Your task to perform on an android device: clear all cookies in the chrome app Image 0: 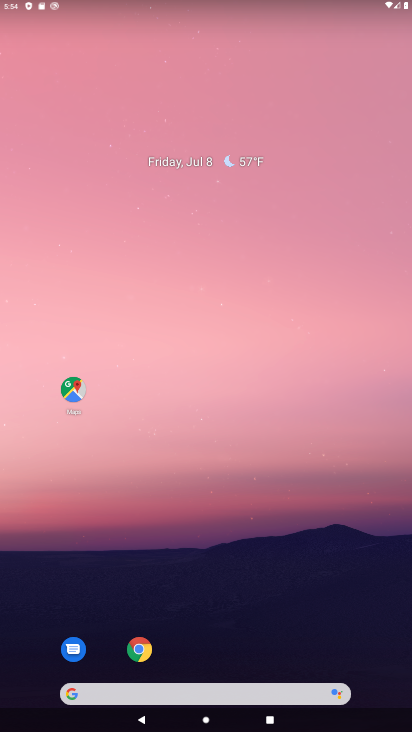
Step 0: drag from (218, 687) to (251, 191)
Your task to perform on an android device: clear all cookies in the chrome app Image 1: 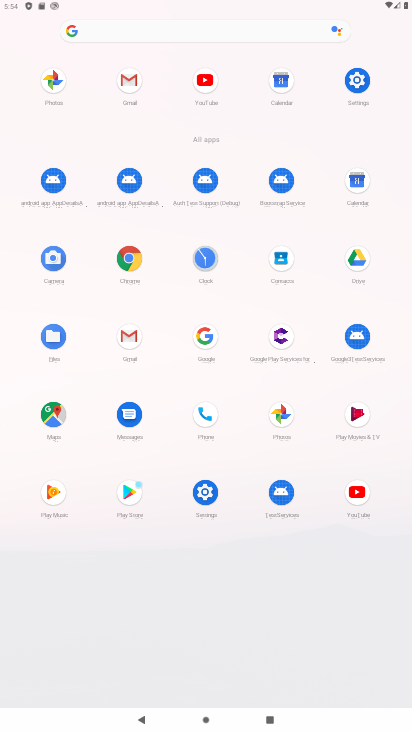
Step 1: click (126, 264)
Your task to perform on an android device: clear all cookies in the chrome app Image 2: 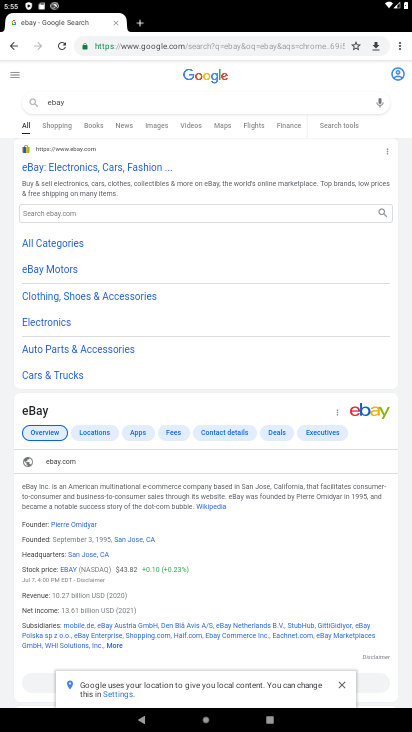
Step 2: press home button
Your task to perform on an android device: clear all cookies in the chrome app Image 3: 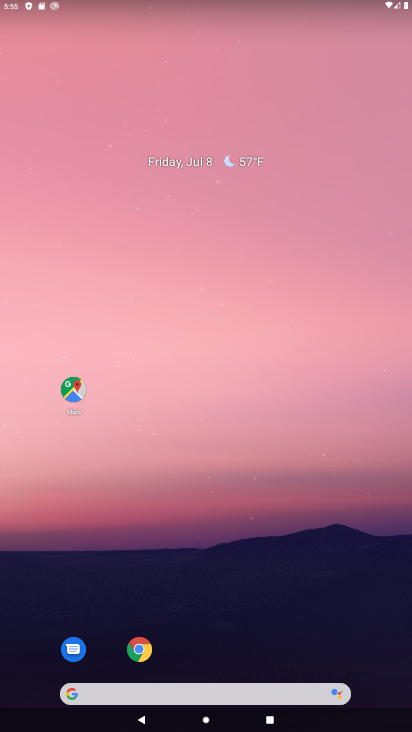
Step 3: drag from (266, 693) to (308, 27)
Your task to perform on an android device: clear all cookies in the chrome app Image 4: 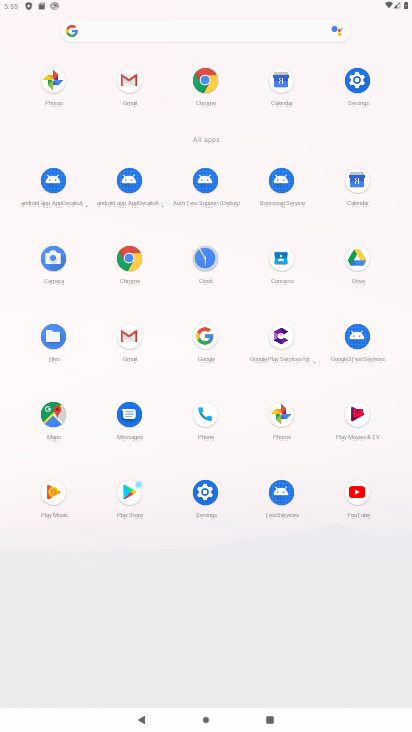
Step 4: click (134, 249)
Your task to perform on an android device: clear all cookies in the chrome app Image 5: 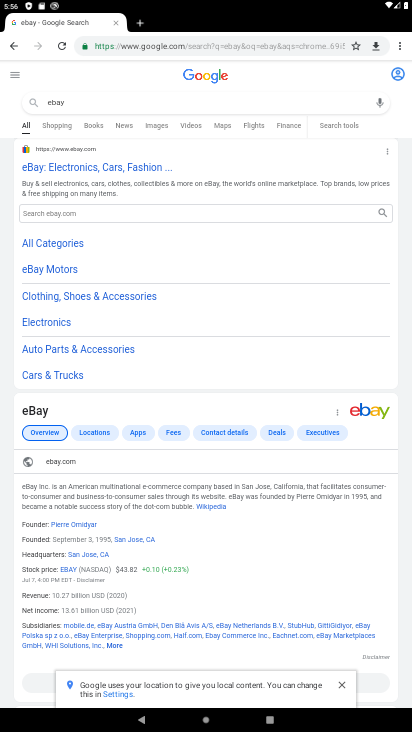
Step 5: drag from (398, 46) to (313, 280)
Your task to perform on an android device: clear all cookies in the chrome app Image 6: 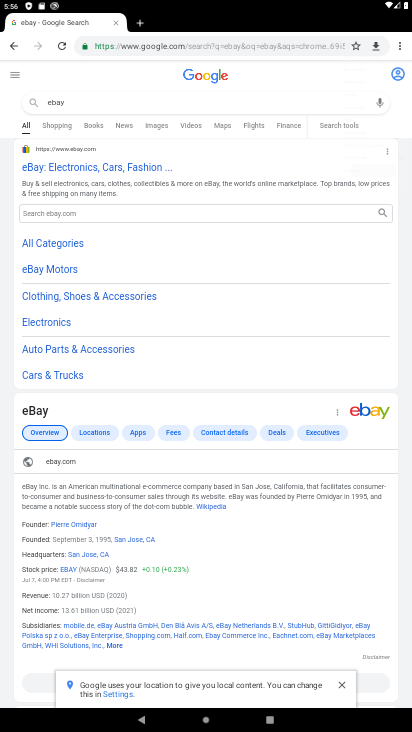
Step 6: click (315, 280)
Your task to perform on an android device: clear all cookies in the chrome app Image 7: 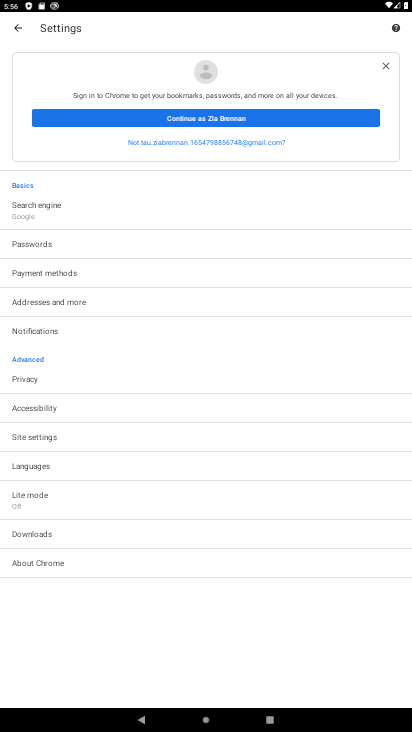
Step 7: click (56, 391)
Your task to perform on an android device: clear all cookies in the chrome app Image 8: 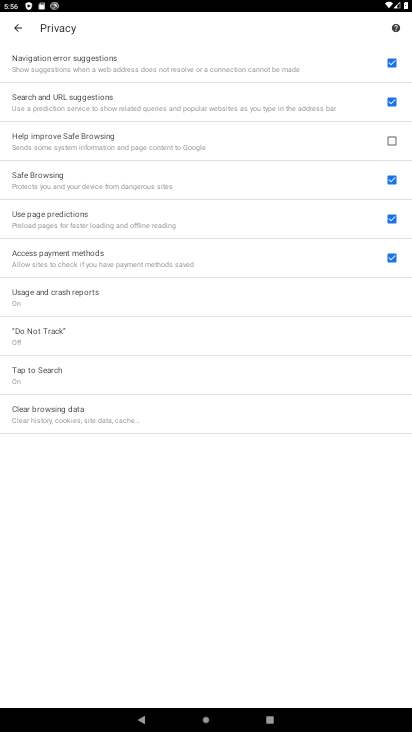
Step 8: click (50, 411)
Your task to perform on an android device: clear all cookies in the chrome app Image 9: 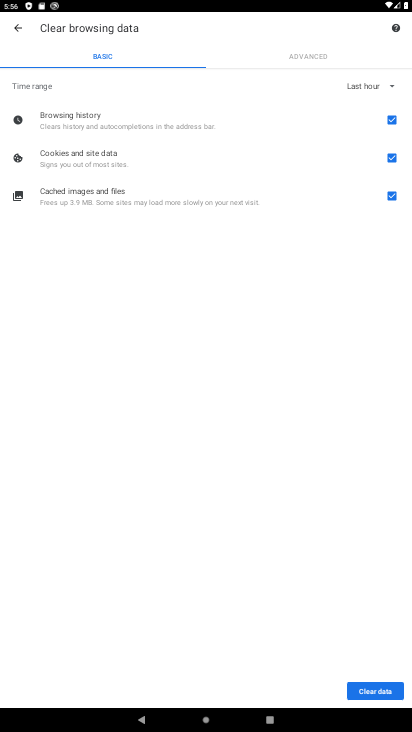
Step 9: click (381, 698)
Your task to perform on an android device: clear all cookies in the chrome app Image 10: 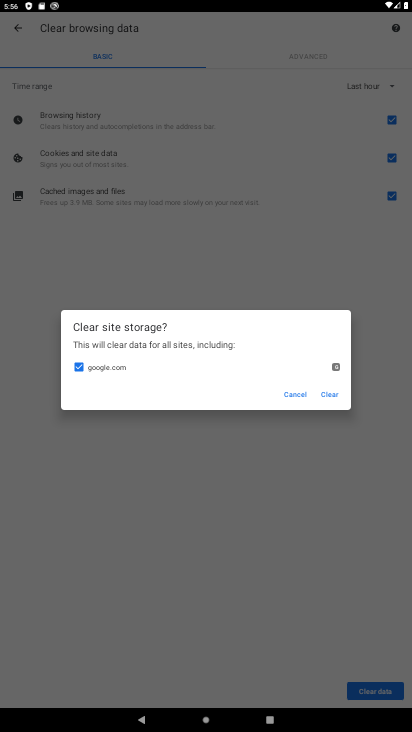
Step 10: click (329, 394)
Your task to perform on an android device: clear all cookies in the chrome app Image 11: 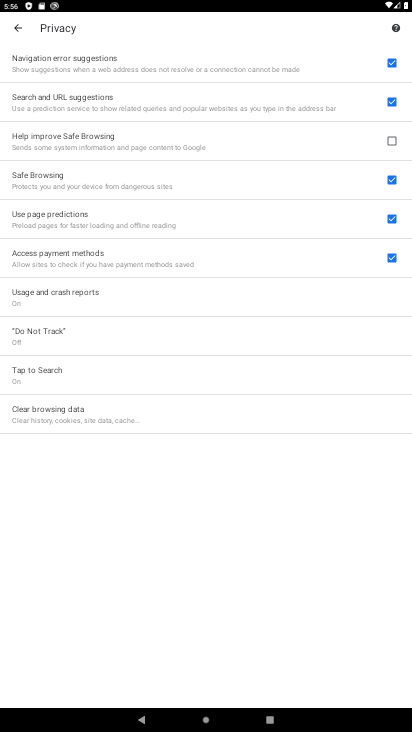
Step 11: click (211, 411)
Your task to perform on an android device: clear all cookies in the chrome app Image 12: 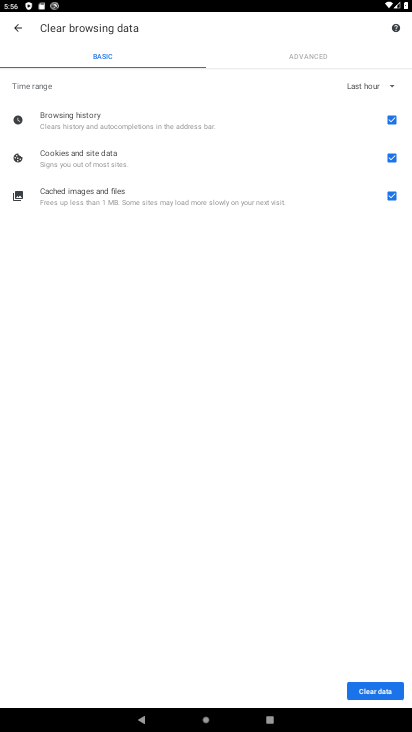
Step 12: click (389, 693)
Your task to perform on an android device: clear all cookies in the chrome app Image 13: 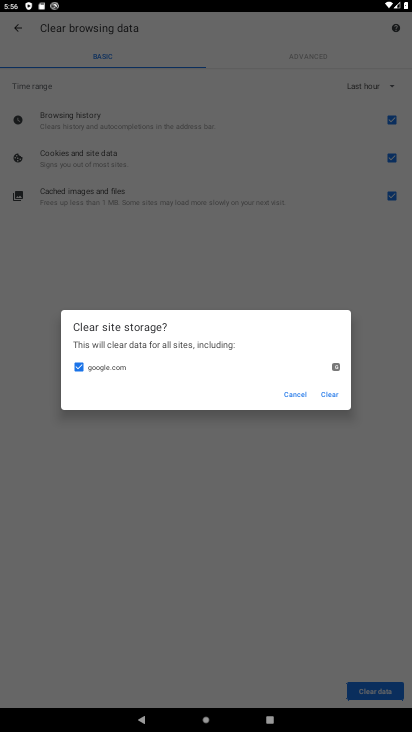
Step 13: click (328, 392)
Your task to perform on an android device: clear all cookies in the chrome app Image 14: 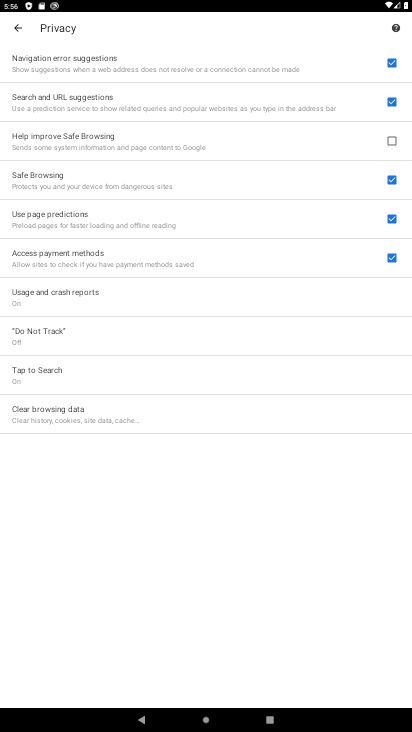
Step 14: task complete